Your task to perform on an android device: manage bookmarks in the chrome app Image 0: 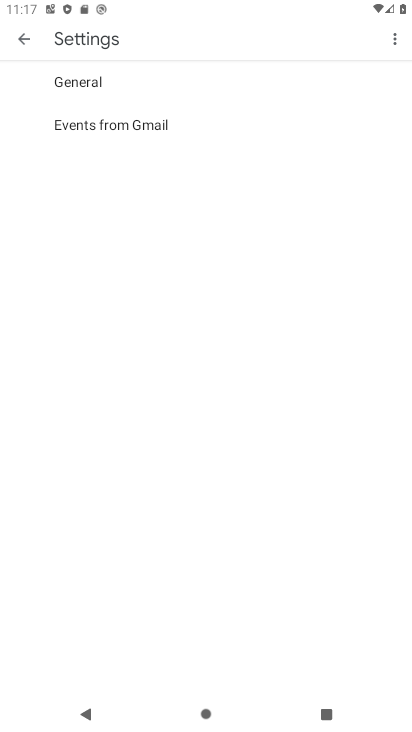
Step 0: press home button
Your task to perform on an android device: manage bookmarks in the chrome app Image 1: 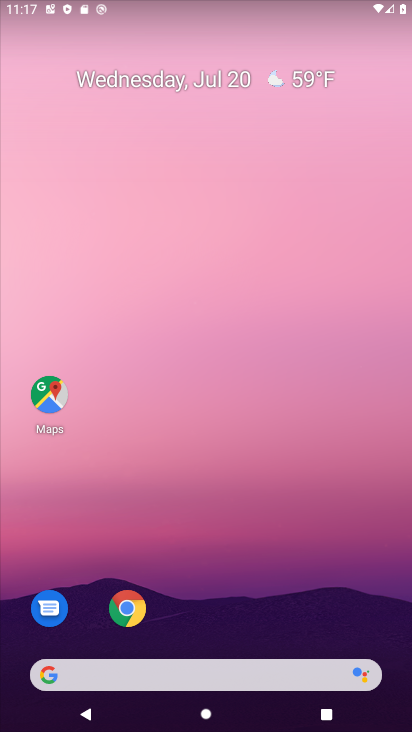
Step 1: drag from (267, 616) to (164, 73)
Your task to perform on an android device: manage bookmarks in the chrome app Image 2: 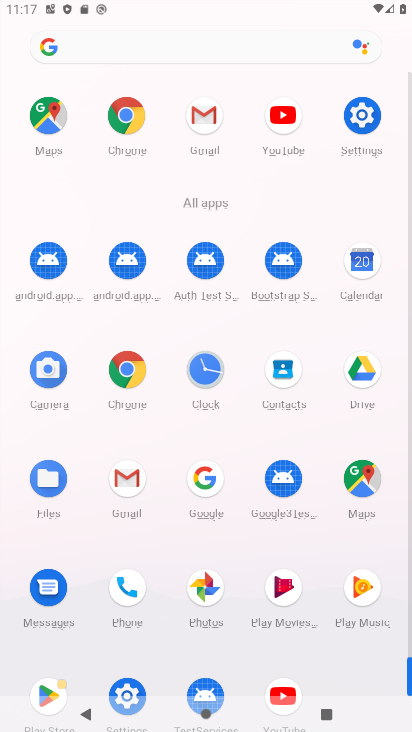
Step 2: click (123, 124)
Your task to perform on an android device: manage bookmarks in the chrome app Image 3: 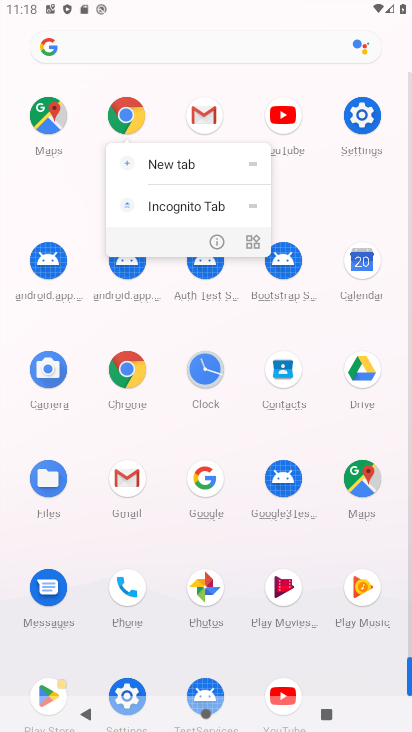
Step 3: click (123, 124)
Your task to perform on an android device: manage bookmarks in the chrome app Image 4: 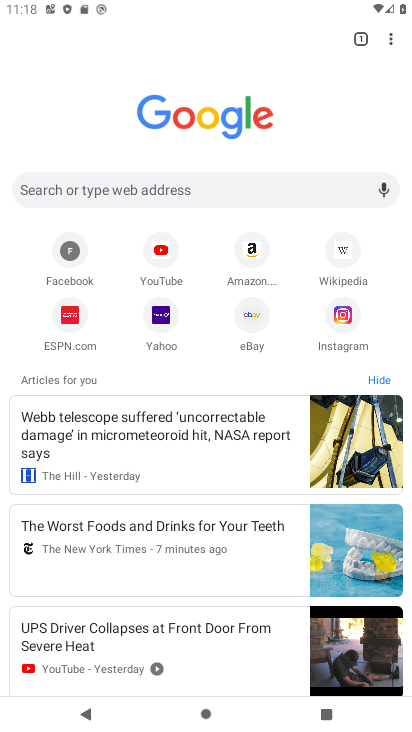
Step 4: drag from (386, 29) to (270, 148)
Your task to perform on an android device: manage bookmarks in the chrome app Image 5: 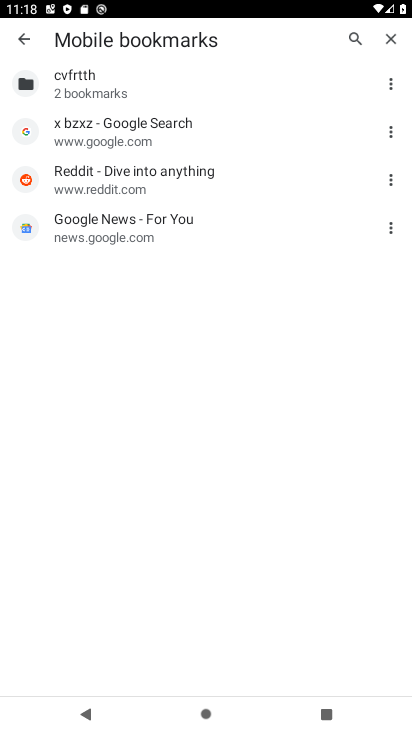
Step 5: click (388, 88)
Your task to perform on an android device: manage bookmarks in the chrome app Image 6: 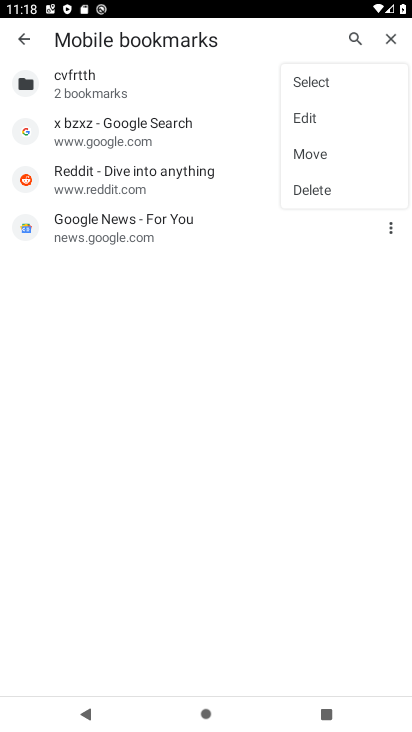
Step 6: click (303, 185)
Your task to perform on an android device: manage bookmarks in the chrome app Image 7: 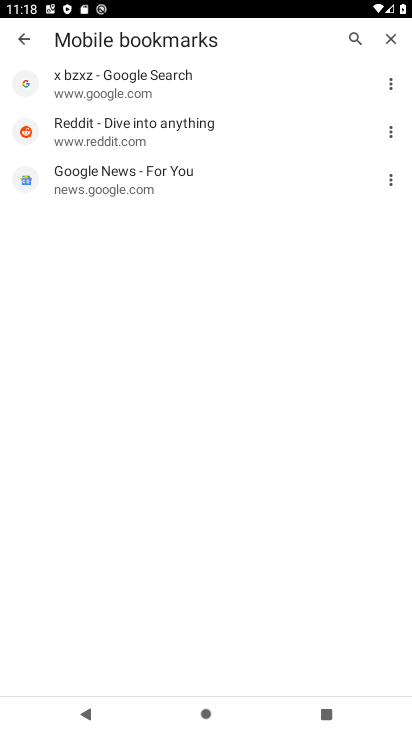
Step 7: task complete